Your task to perform on an android device: turn notification dots off Image 0: 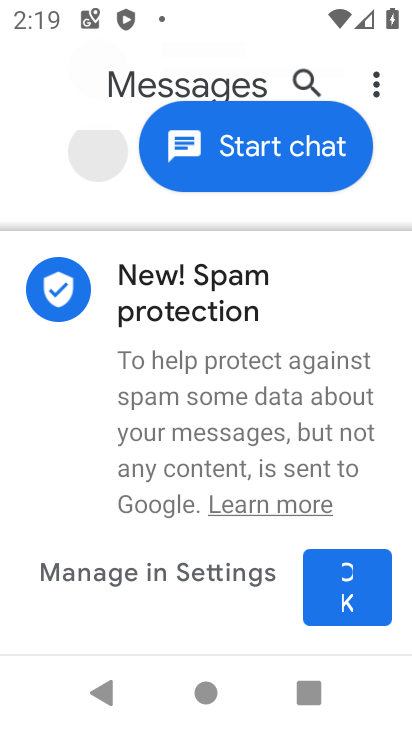
Step 0: press home button
Your task to perform on an android device: turn notification dots off Image 1: 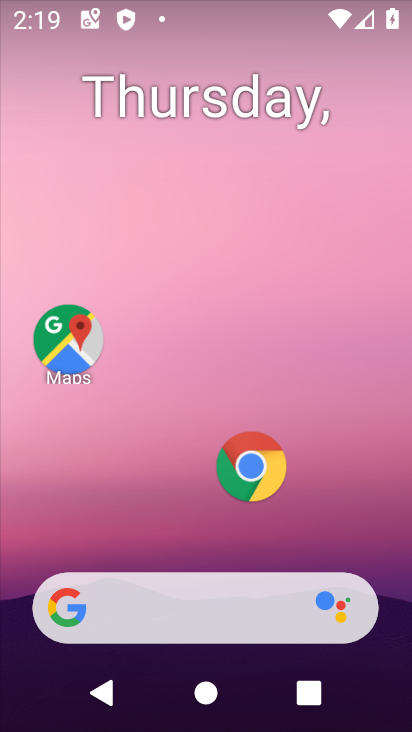
Step 1: drag from (187, 550) to (233, 154)
Your task to perform on an android device: turn notification dots off Image 2: 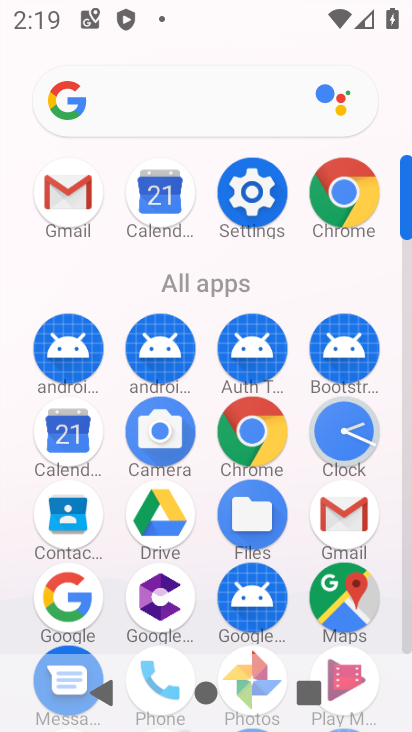
Step 2: click (244, 210)
Your task to perform on an android device: turn notification dots off Image 3: 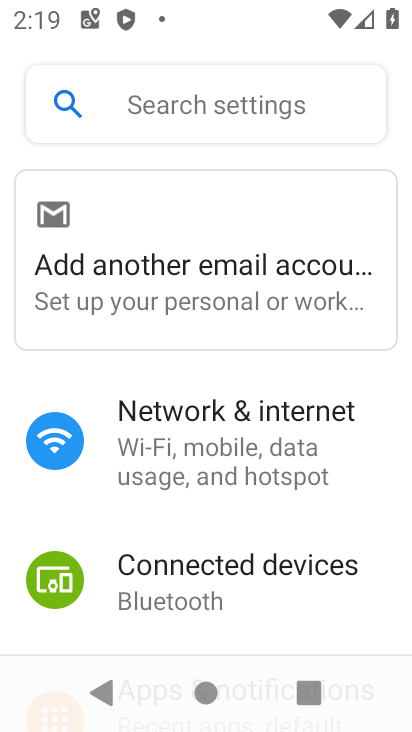
Step 3: drag from (253, 483) to (230, 189)
Your task to perform on an android device: turn notification dots off Image 4: 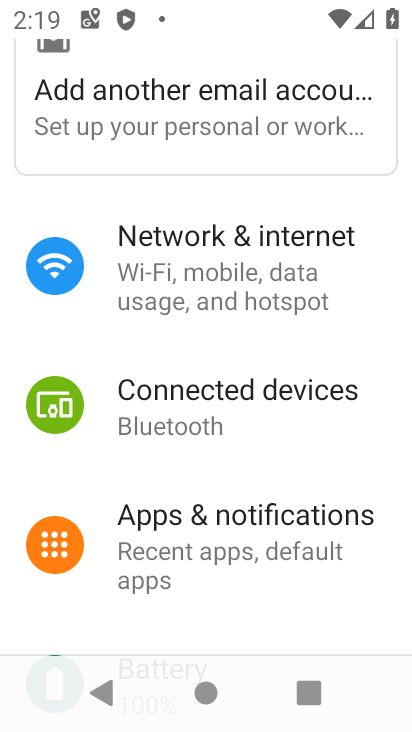
Step 4: click (230, 512)
Your task to perform on an android device: turn notification dots off Image 5: 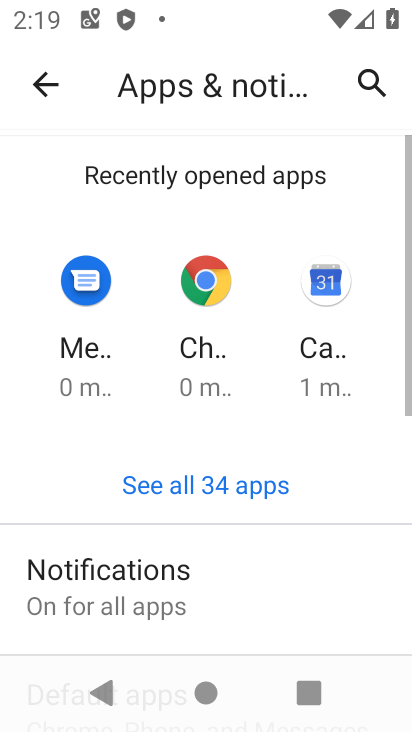
Step 5: drag from (231, 583) to (227, 321)
Your task to perform on an android device: turn notification dots off Image 6: 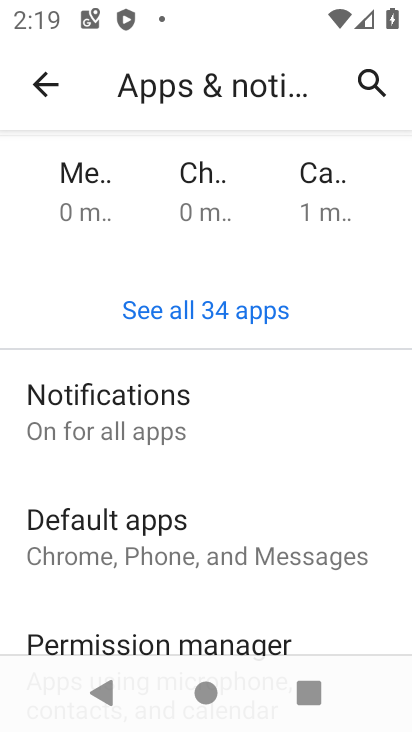
Step 6: click (188, 405)
Your task to perform on an android device: turn notification dots off Image 7: 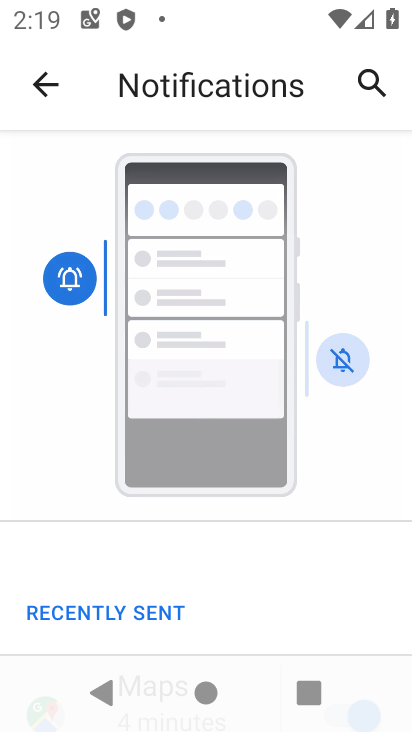
Step 7: drag from (258, 605) to (271, 253)
Your task to perform on an android device: turn notification dots off Image 8: 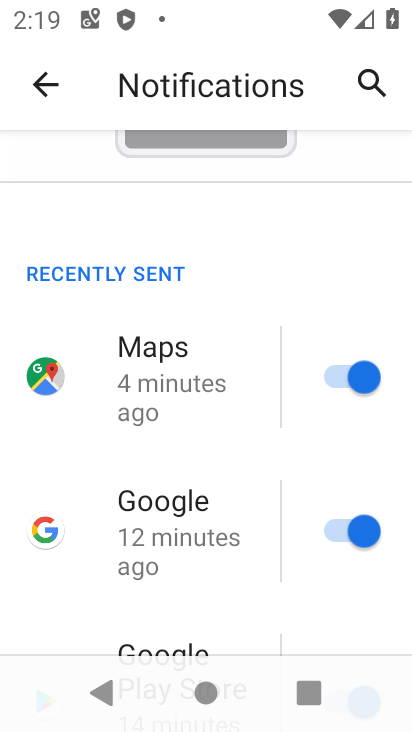
Step 8: drag from (235, 606) to (262, 222)
Your task to perform on an android device: turn notification dots off Image 9: 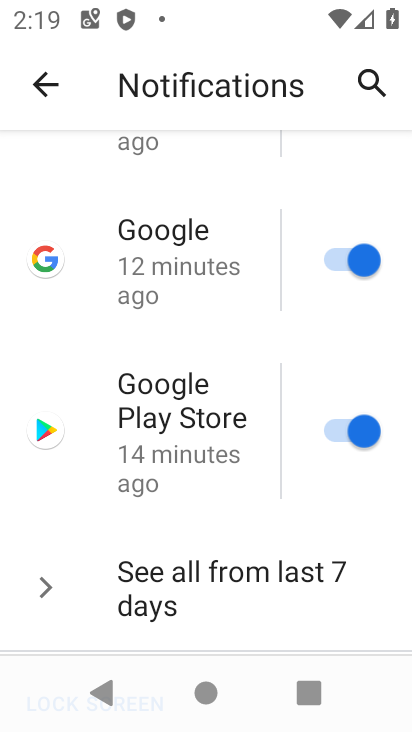
Step 9: drag from (270, 583) to (272, 261)
Your task to perform on an android device: turn notification dots off Image 10: 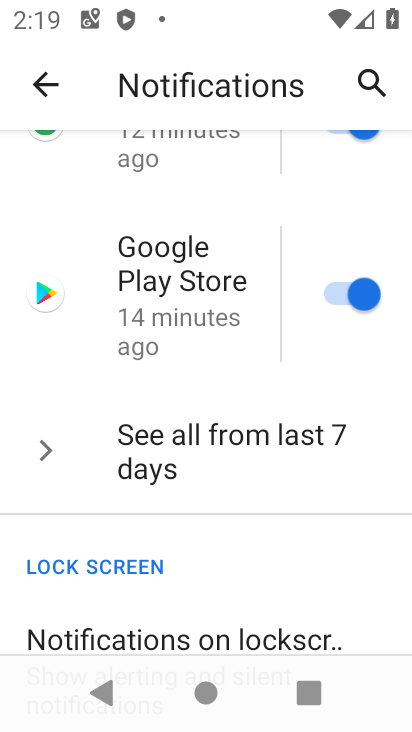
Step 10: drag from (256, 596) to (269, 294)
Your task to perform on an android device: turn notification dots off Image 11: 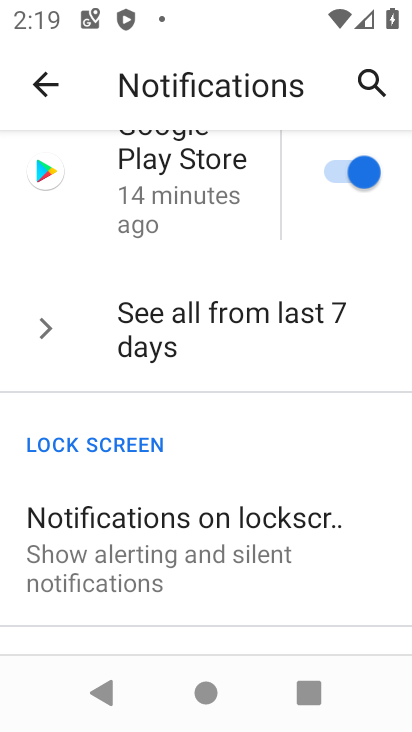
Step 11: drag from (268, 567) to (281, 344)
Your task to perform on an android device: turn notification dots off Image 12: 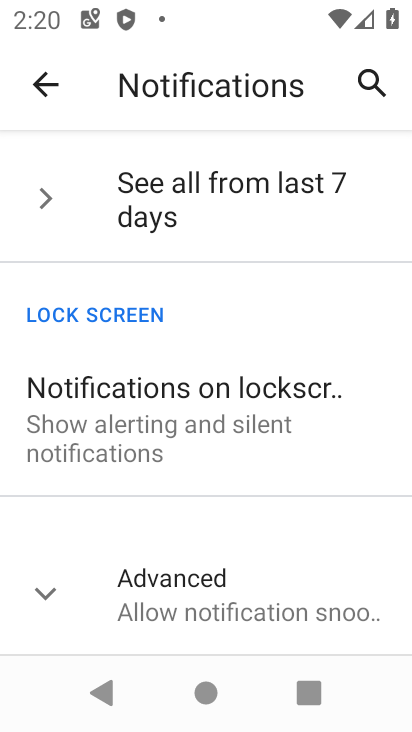
Step 12: click (230, 599)
Your task to perform on an android device: turn notification dots off Image 13: 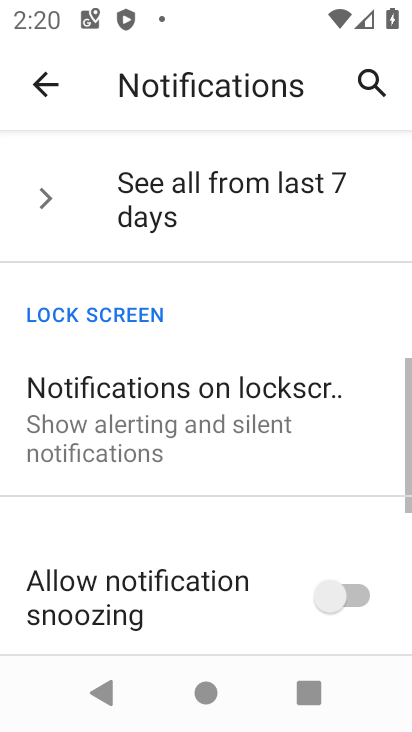
Step 13: drag from (244, 596) to (261, 283)
Your task to perform on an android device: turn notification dots off Image 14: 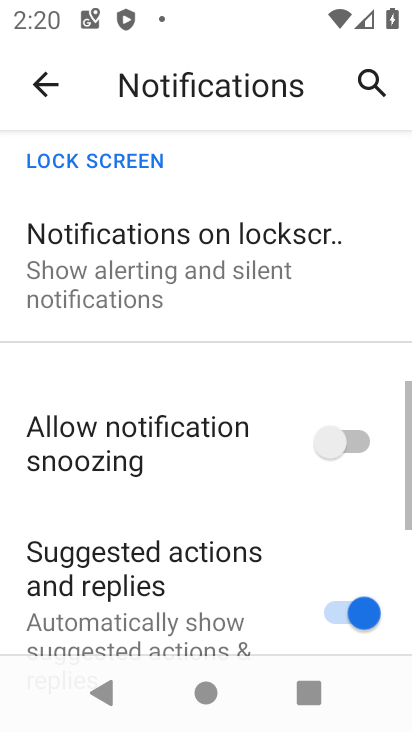
Step 14: drag from (233, 556) to (238, 290)
Your task to perform on an android device: turn notification dots off Image 15: 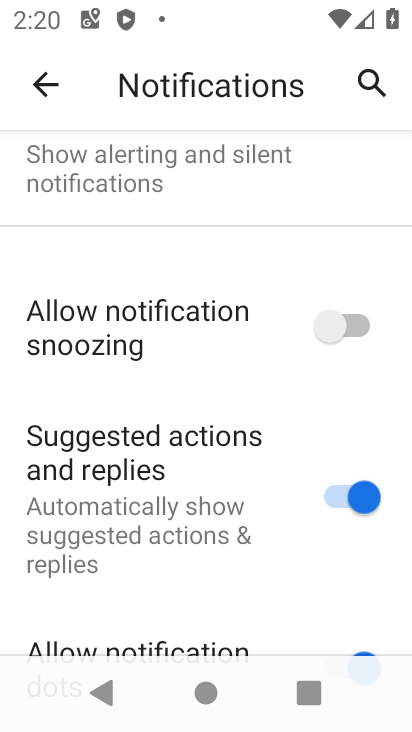
Step 15: drag from (224, 552) to (231, 264)
Your task to perform on an android device: turn notification dots off Image 16: 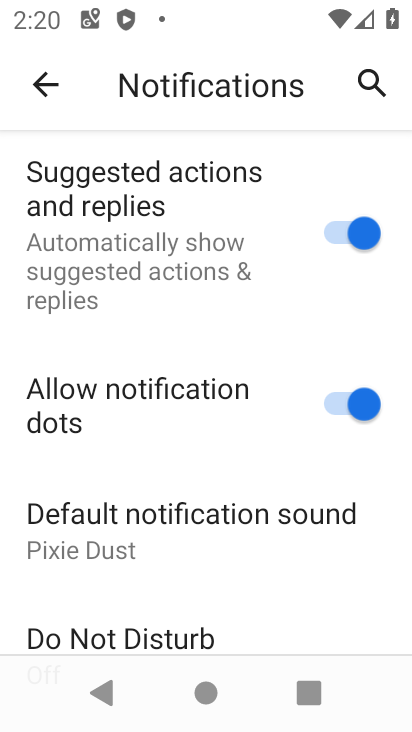
Step 16: drag from (242, 556) to (247, 269)
Your task to perform on an android device: turn notification dots off Image 17: 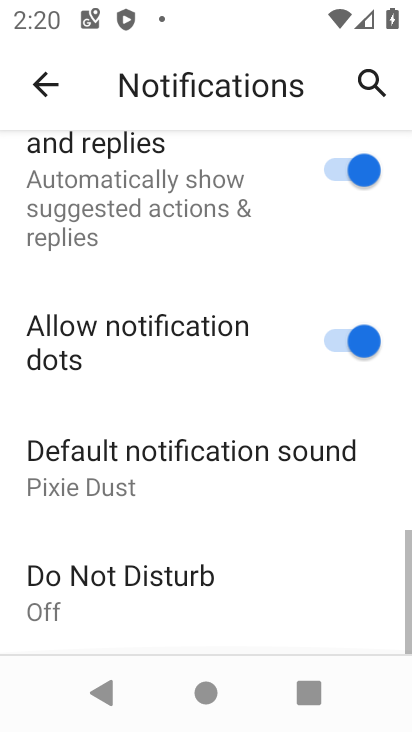
Step 17: drag from (248, 279) to (248, 450)
Your task to perform on an android device: turn notification dots off Image 18: 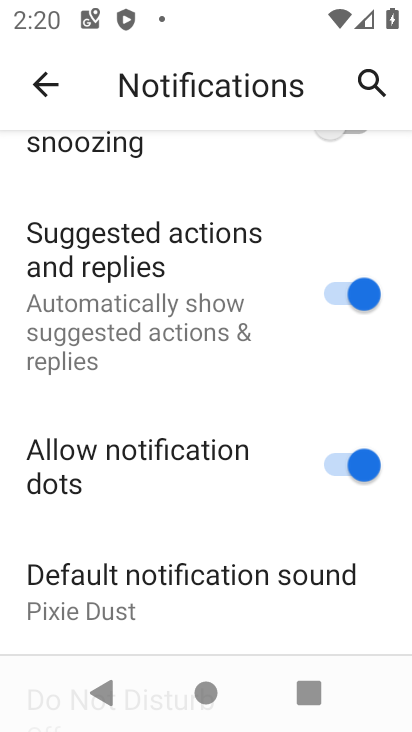
Step 18: click (334, 468)
Your task to perform on an android device: turn notification dots off Image 19: 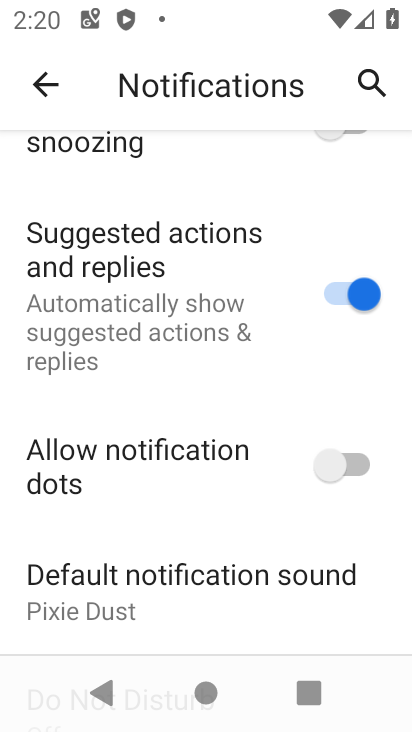
Step 19: task complete